Your task to perform on an android device: Turn on the flashlight Image 0: 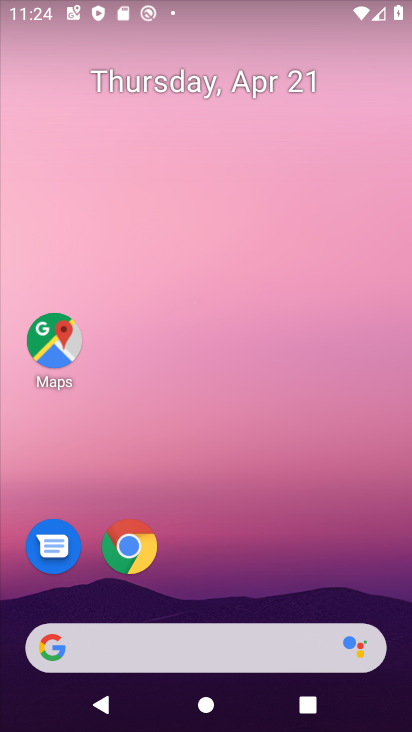
Step 0: drag from (269, 392) to (264, 93)
Your task to perform on an android device: Turn on the flashlight Image 1: 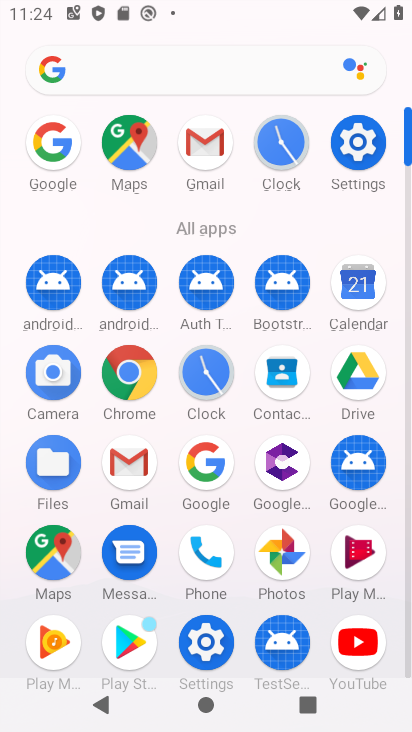
Step 1: click (357, 148)
Your task to perform on an android device: Turn on the flashlight Image 2: 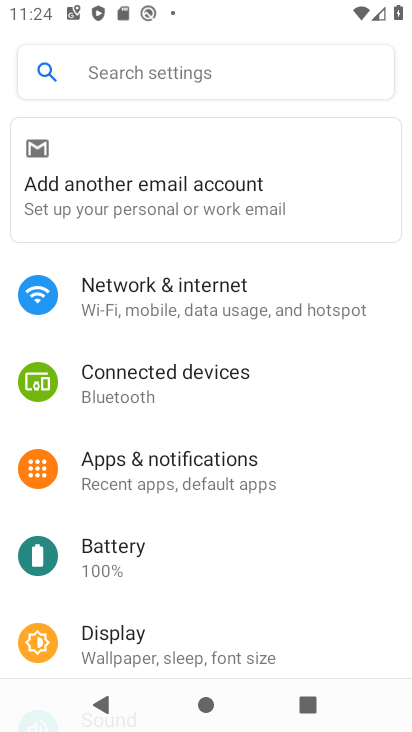
Step 2: click (232, 76)
Your task to perform on an android device: Turn on the flashlight Image 3: 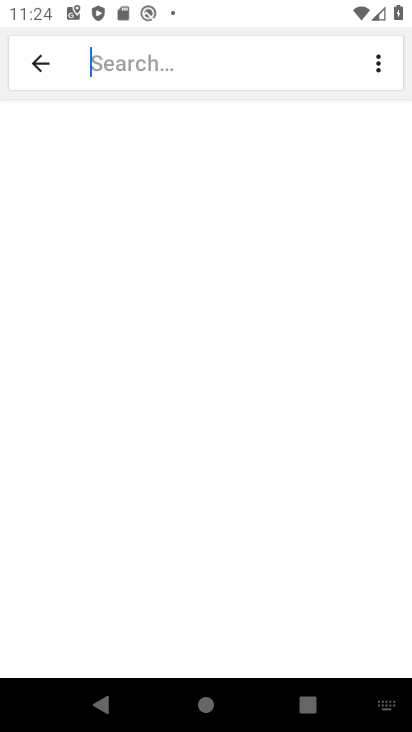
Step 3: type "flash"
Your task to perform on an android device: Turn on the flashlight Image 4: 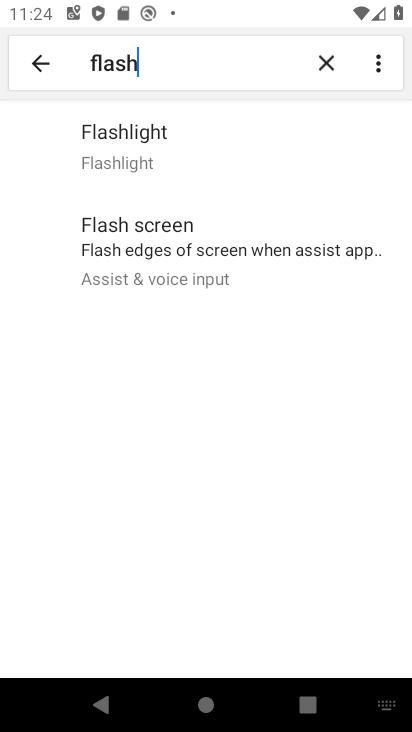
Step 4: task complete